Your task to perform on an android device: Empty the shopping cart on ebay. Add "usb-b" to the cart on ebay Image 0: 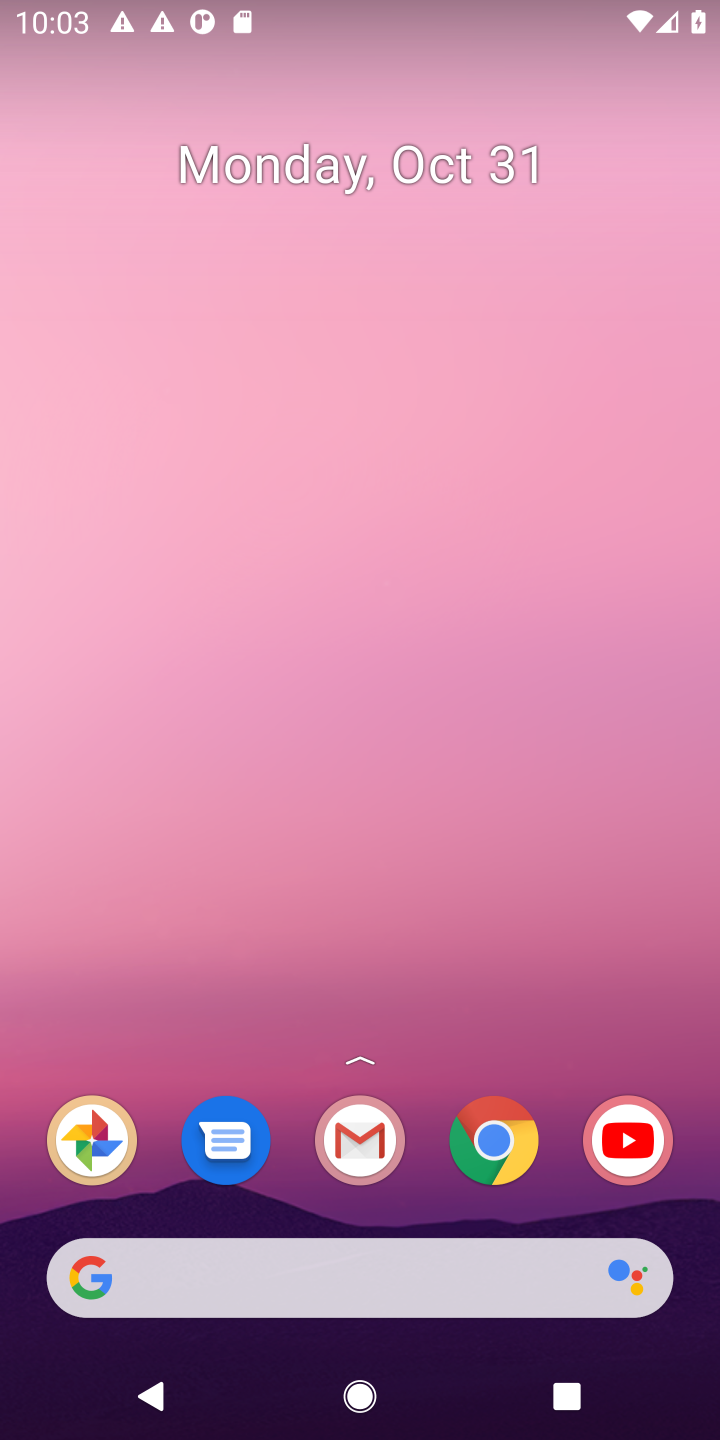
Step 0: press home button
Your task to perform on an android device: Empty the shopping cart on ebay. Add "usb-b" to the cart on ebay Image 1: 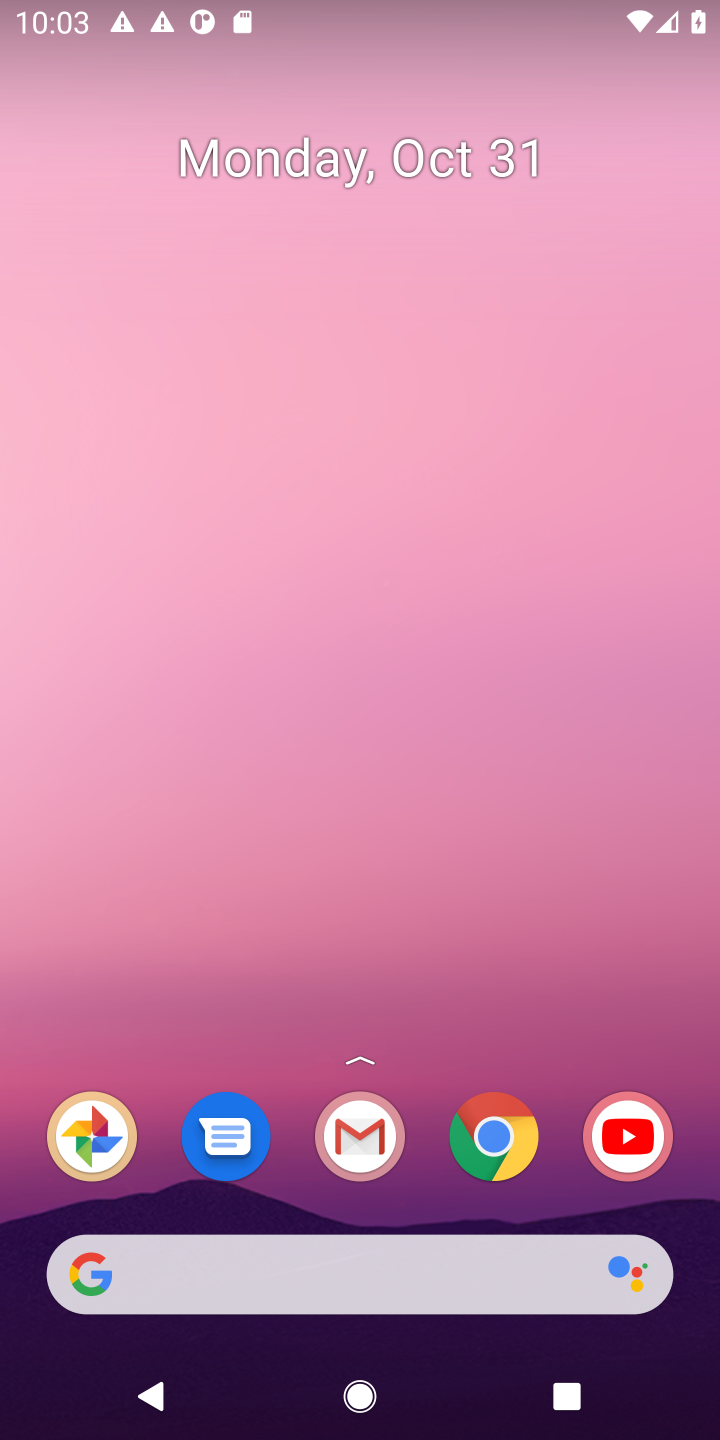
Step 1: click (131, 1276)
Your task to perform on an android device: Empty the shopping cart on ebay. Add "usb-b" to the cart on ebay Image 2: 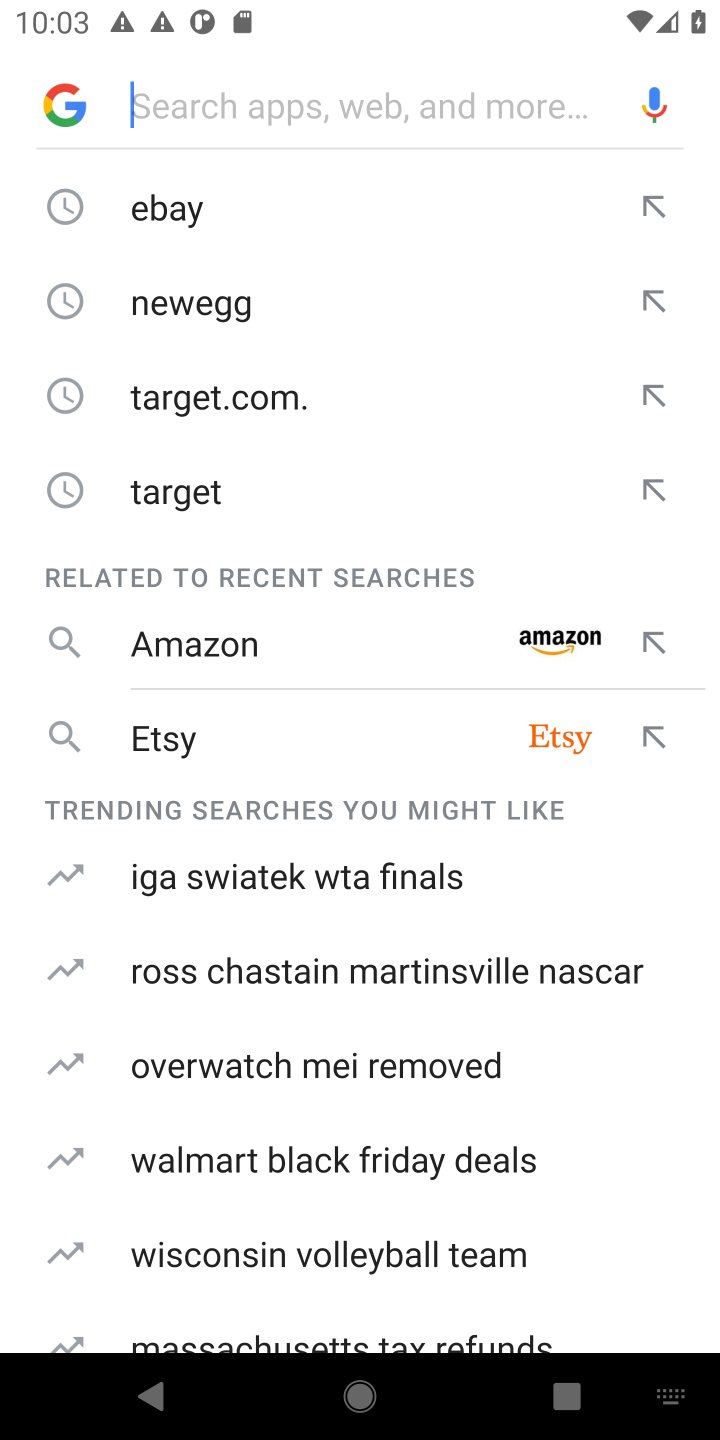
Step 2: press enter
Your task to perform on an android device: Empty the shopping cart on ebay. Add "usb-b" to the cart on ebay Image 3: 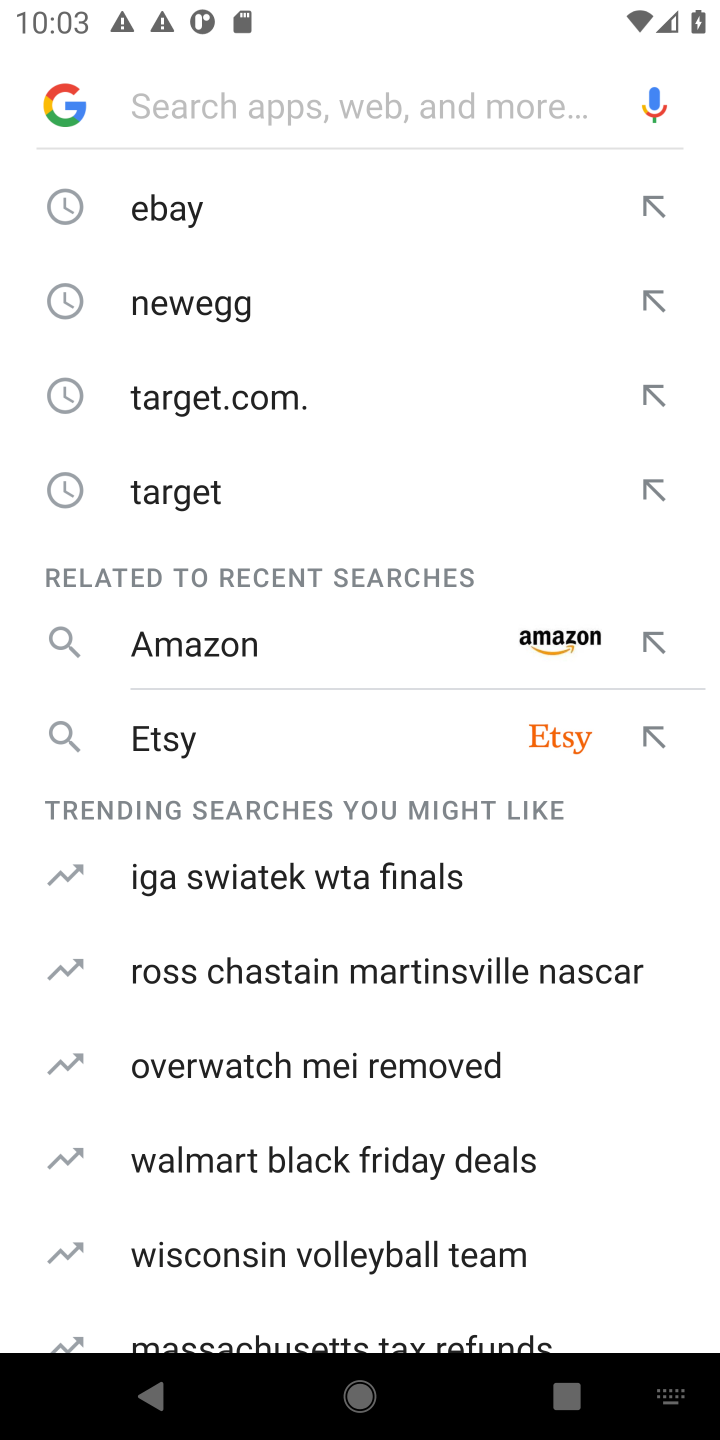
Step 3: type "ebay"
Your task to perform on an android device: Empty the shopping cart on ebay. Add "usb-b" to the cart on ebay Image 4: 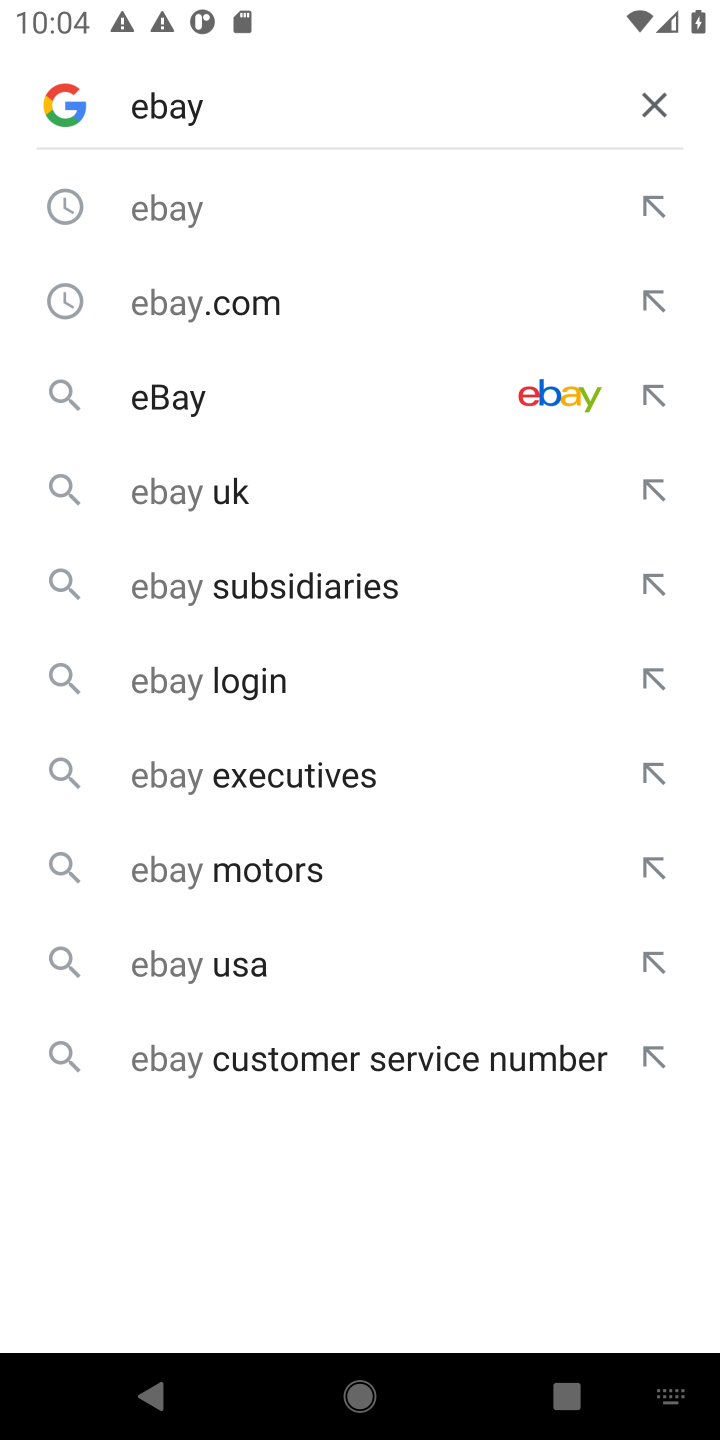
Step 4: press enter
Your task to perform on an android device: Empty the shopping cart on ebay. Add "usb-b" to the cart on ebay Image 5: 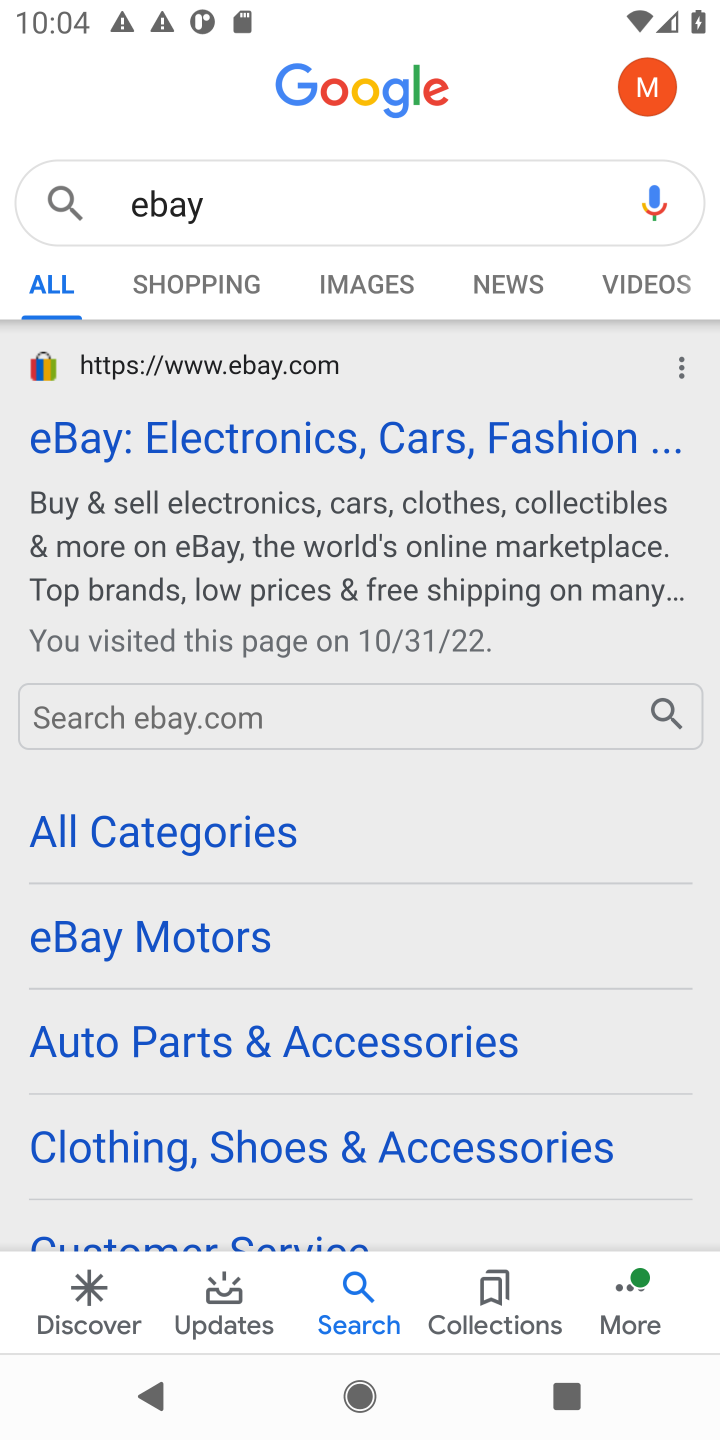
Step 5: click (336, 431)
Your task to perform on an android device: Empty the shopping cart on ebay. Add "usb-b" to the cart on ebay Image 6: 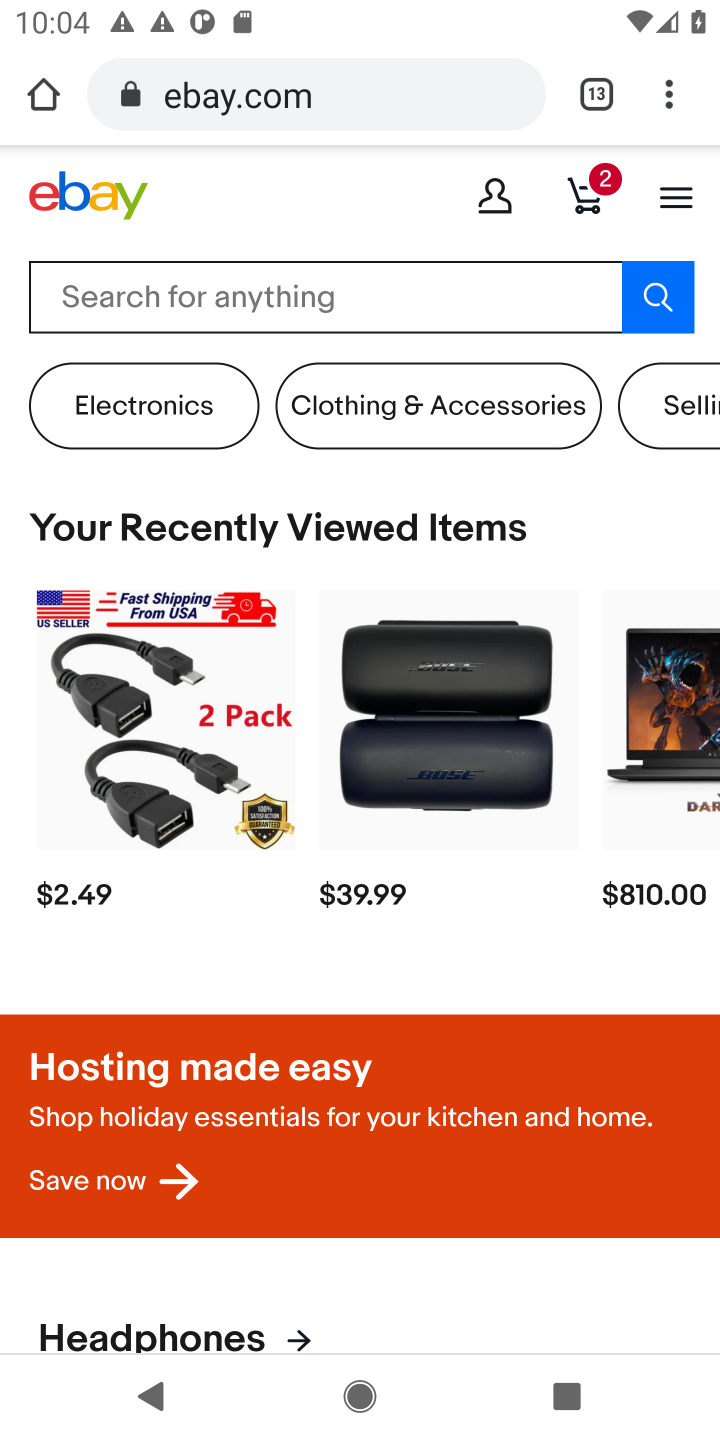
Step 6: click (592, 183)
Your task to perform on an android device: Empty the shopping cart on ebay. Add "usb-b" to the cart on ebay Image 7: 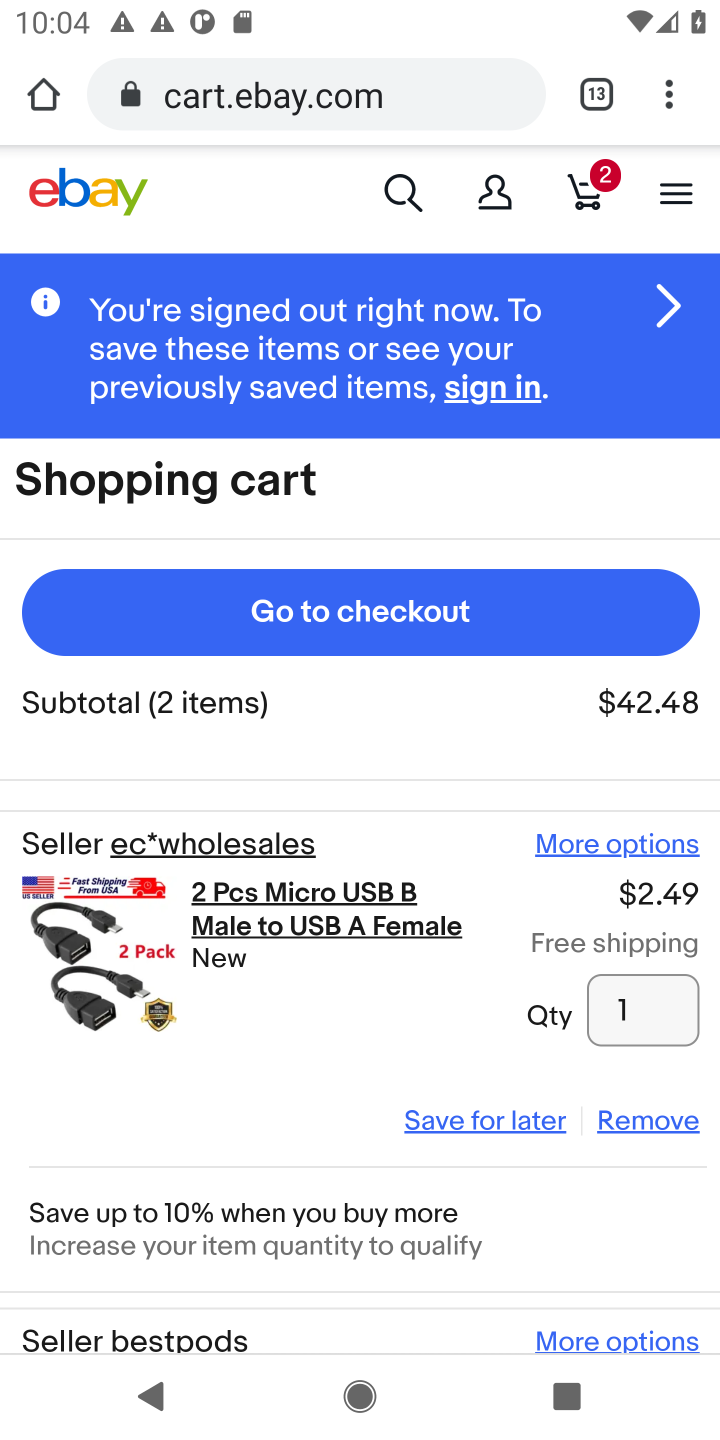
Step 7: click (657, 1127)
Your task to perform on an android device: Empty the shopping cart on ebay. Add "usb-b" to the cart on ebay Image 8: 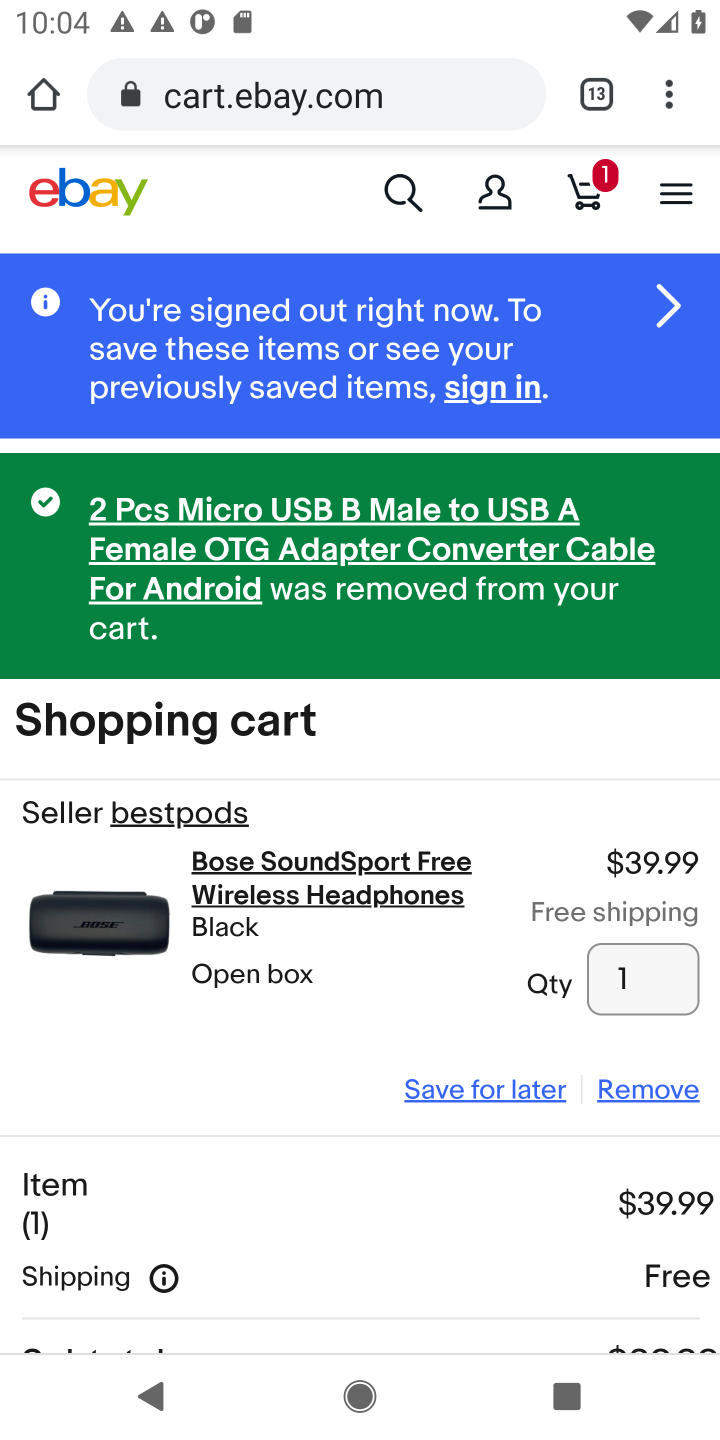
Step 8: click (652, 1084)
Your task to perform on an android device: Empty the shopping cart on ebay. Add "usb-b" to the cart on ebay Image 9: 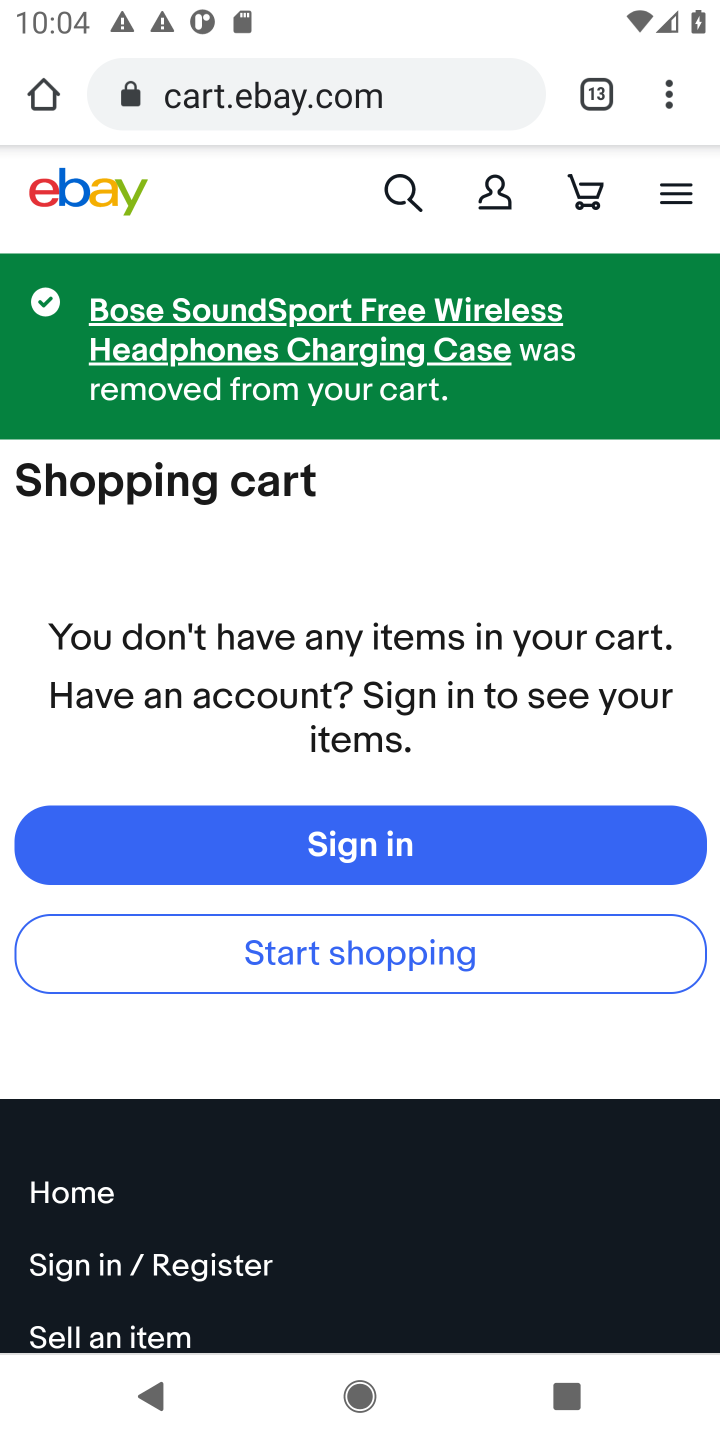
Step 9: click (396, 179)
Your task to perform on an android device: Empty the shopping cart on ebay. Add "usb-b" to the cart on ebay Image 10: 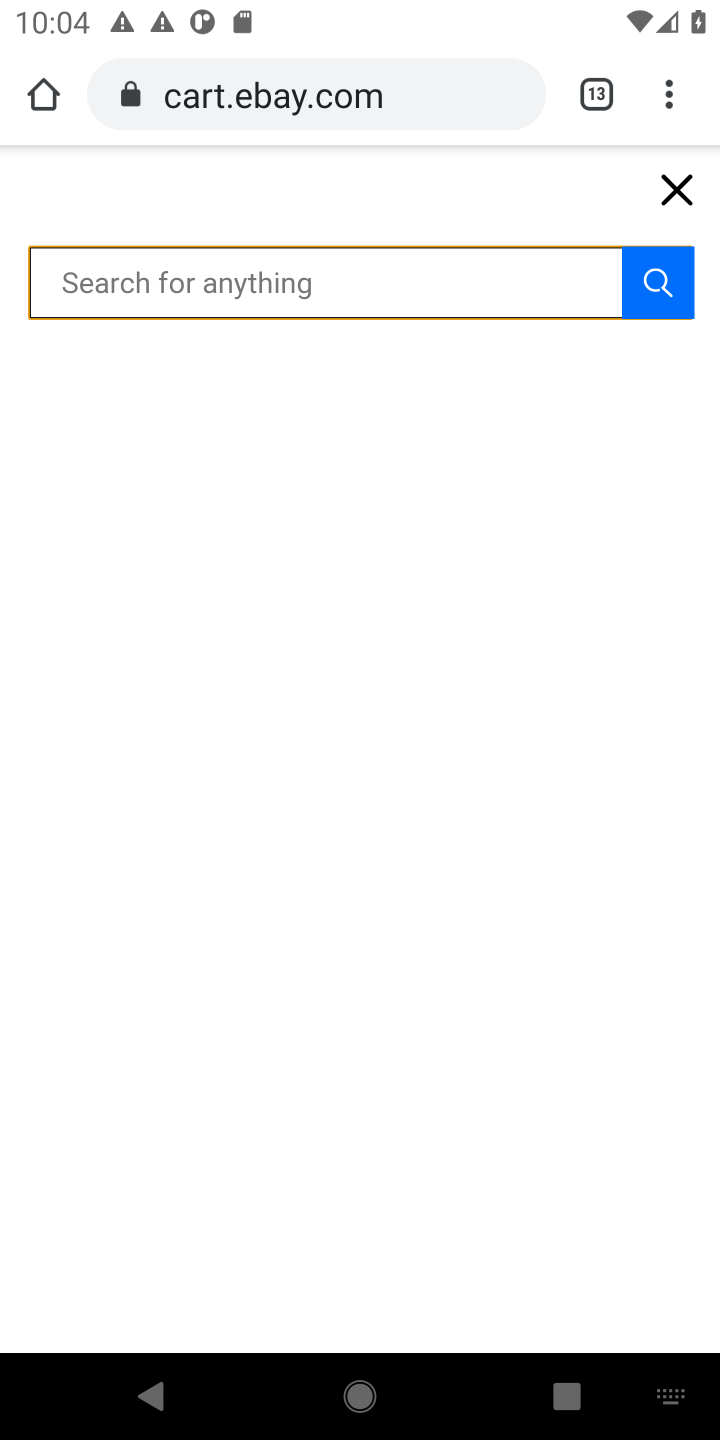
Step 10: press enter
Your task to perform on an android device: Empty the shopping cart on ebay. Add "usb-b" to the cart on ebay Image 11: 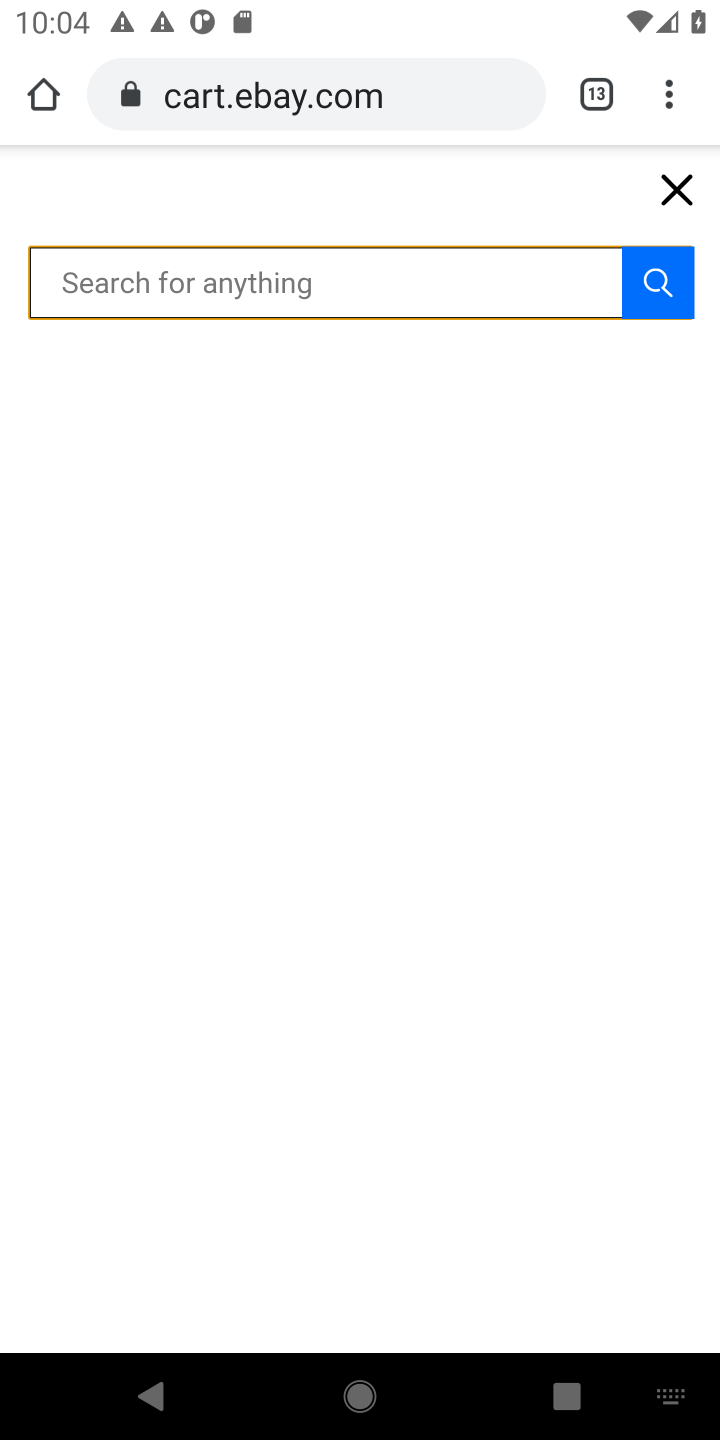
Step 11: type "usb-b"
Your task to perform on an android device: Empty the shopping cart on ebay. Add "usb-b" to the cart on ebay Image 12: 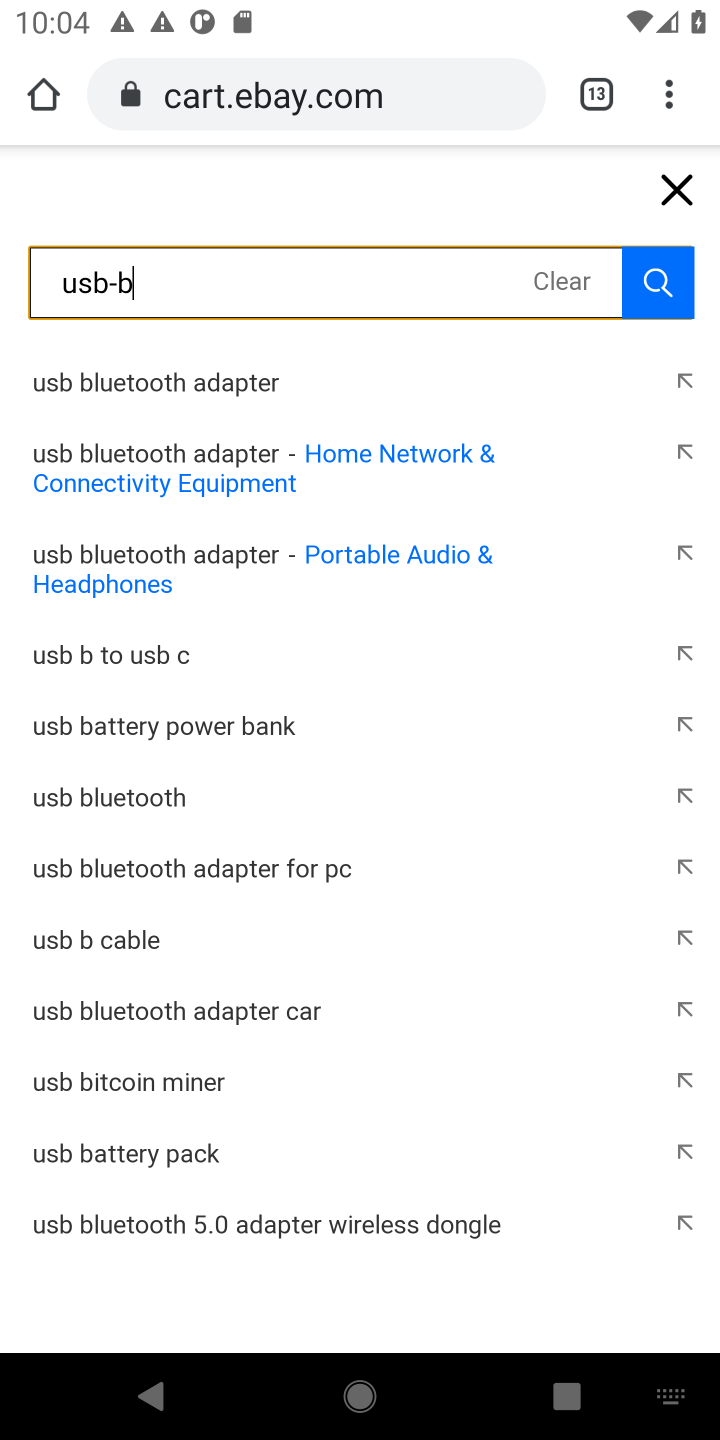
Step 12: click (661, 258)
Your task to perform on an android device: Empty the shopping cart on ebay. Add "usb-b" to the cart on ebay Image 13: 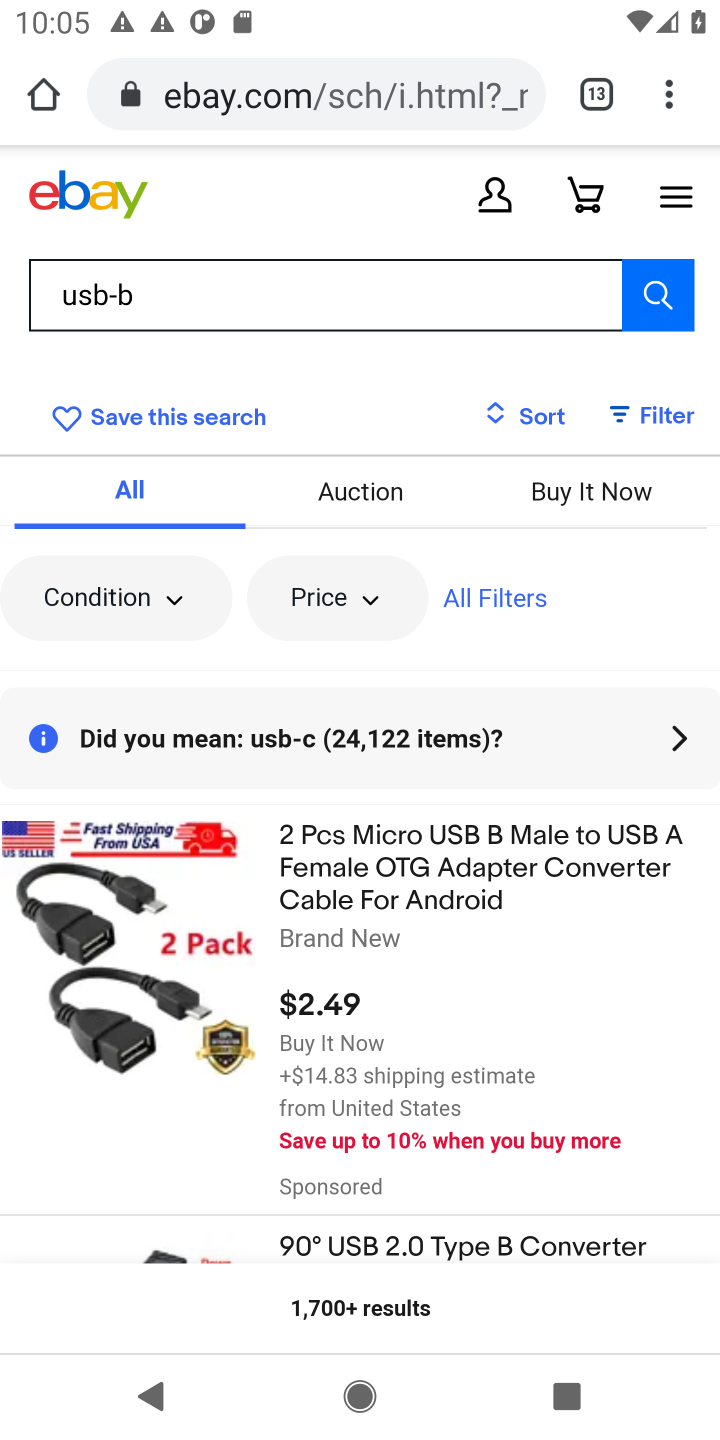
Step 13: drag from (402, 1148) to (405, 733)
Your task to perform on an android device: Empty the shopping cart on ebay. Add "usb-b" to the cart on ebay Image 14: 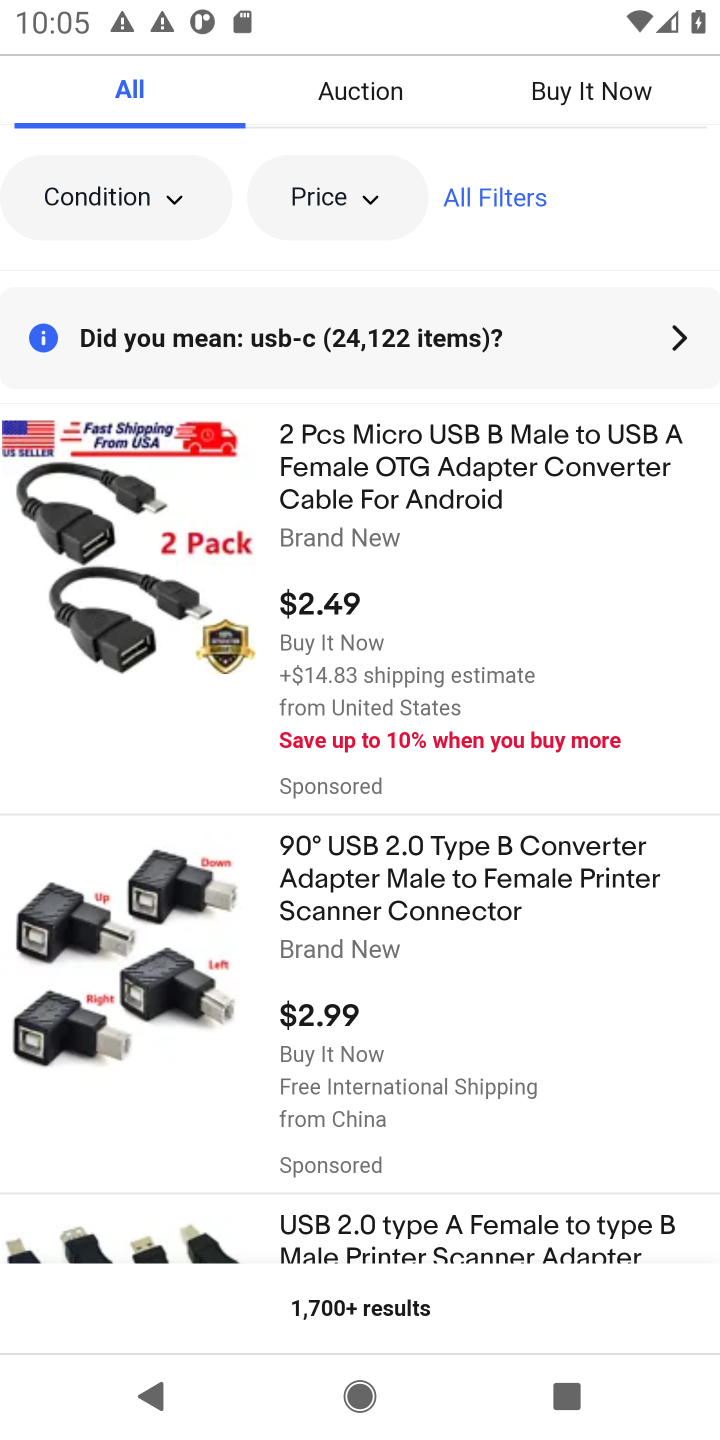
Step 14: click (446, 495)
Your task to perform on an android device: Empty the shopping cart on ebay. Add "usb-b" to the cart on ebay Image 15: 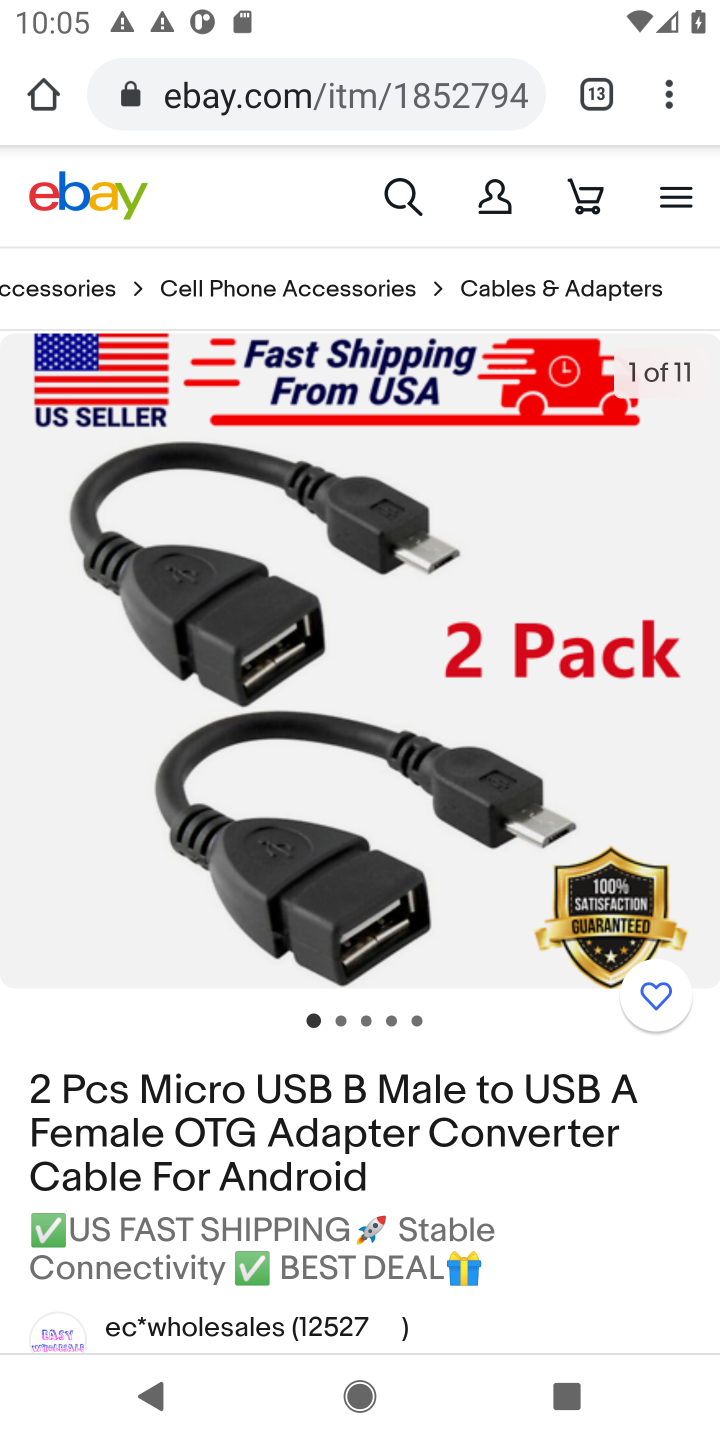
Step 15: drag from (375, 1064) to (405, 644)
Your task to perform on an android device: Empty the shopping cart on ebay. Add "usb-b" to the cart on ebay Image 16: 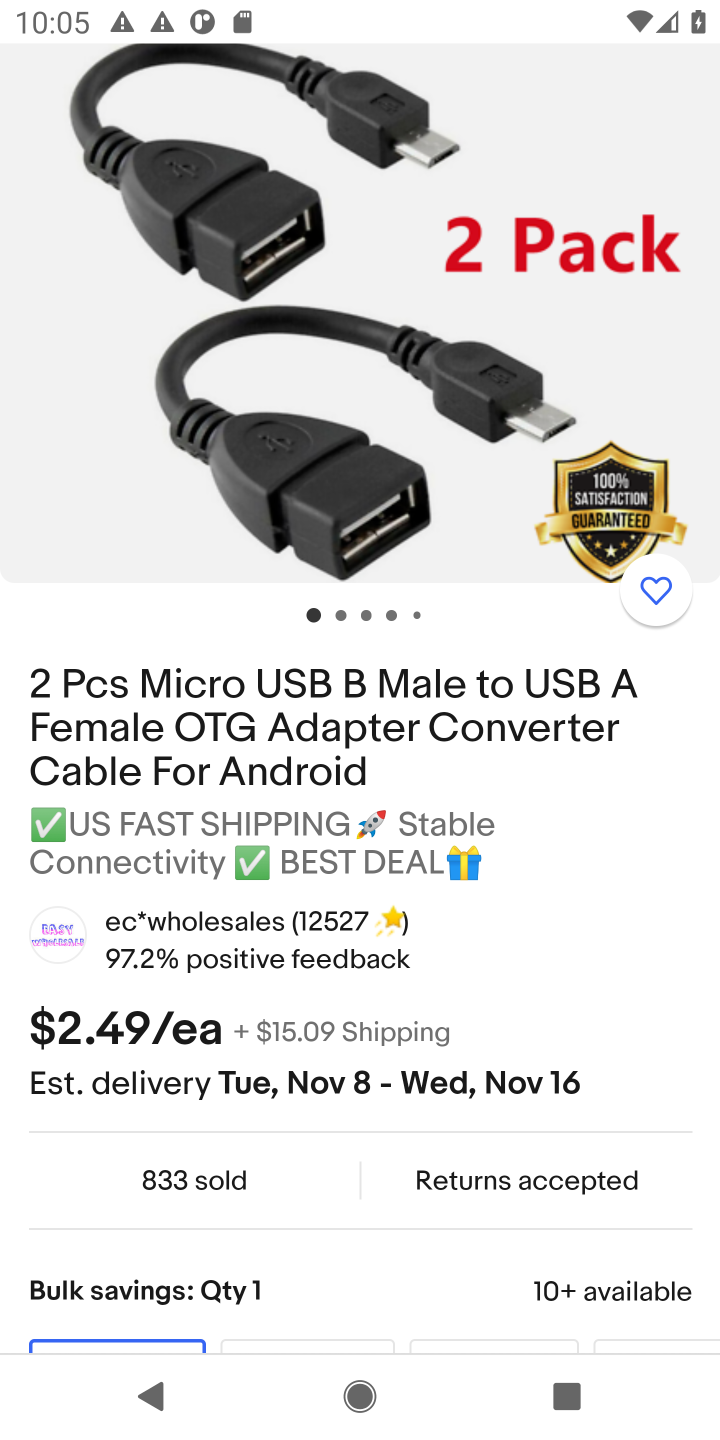
Step 16: drag from (384, 1133) to (402, 483)
Your task to perform on an android device: Empty the shopping cart on ebay. Add "usb-b" to the cart on ebay Image 17: 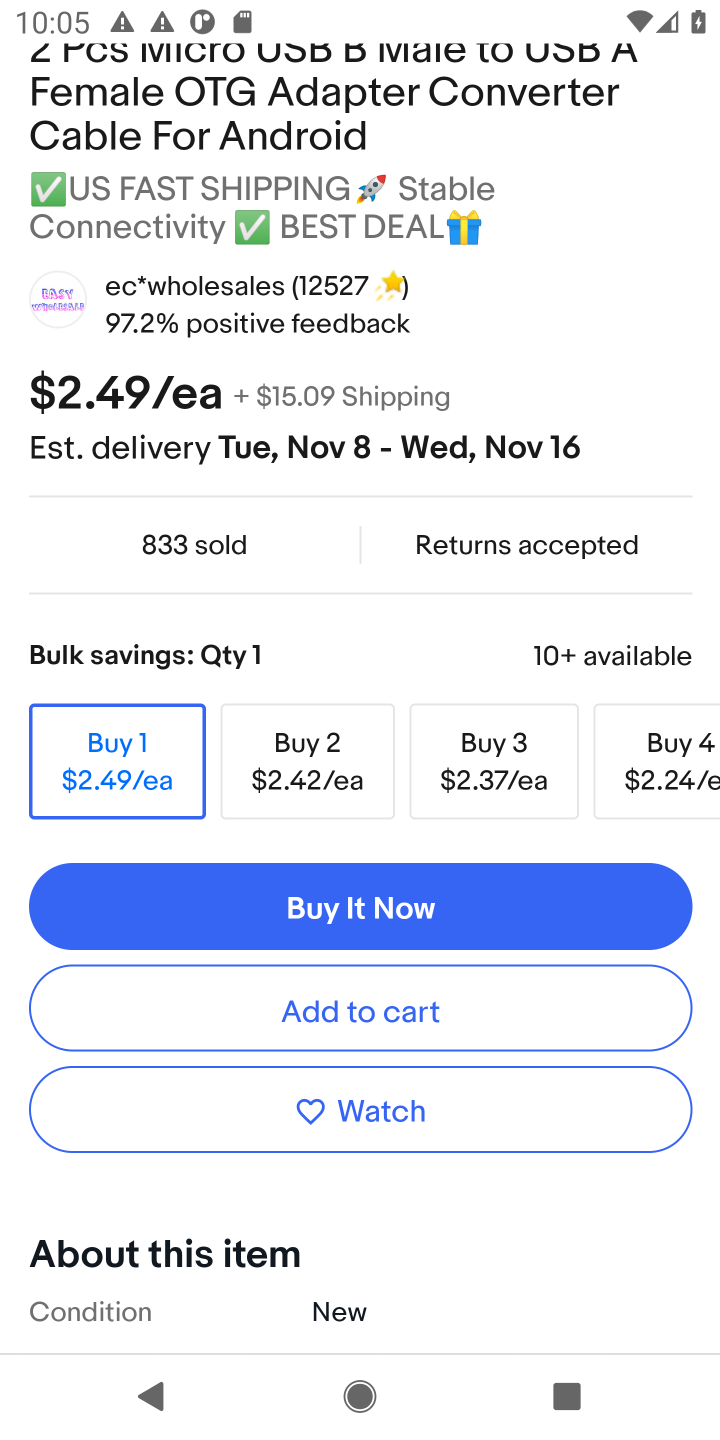
Step 17: click (475, 1024)
Your task to perform on an android device: Empty the shopping cart on ebay. Add "usb-b" to the cart on ebay Image 18: 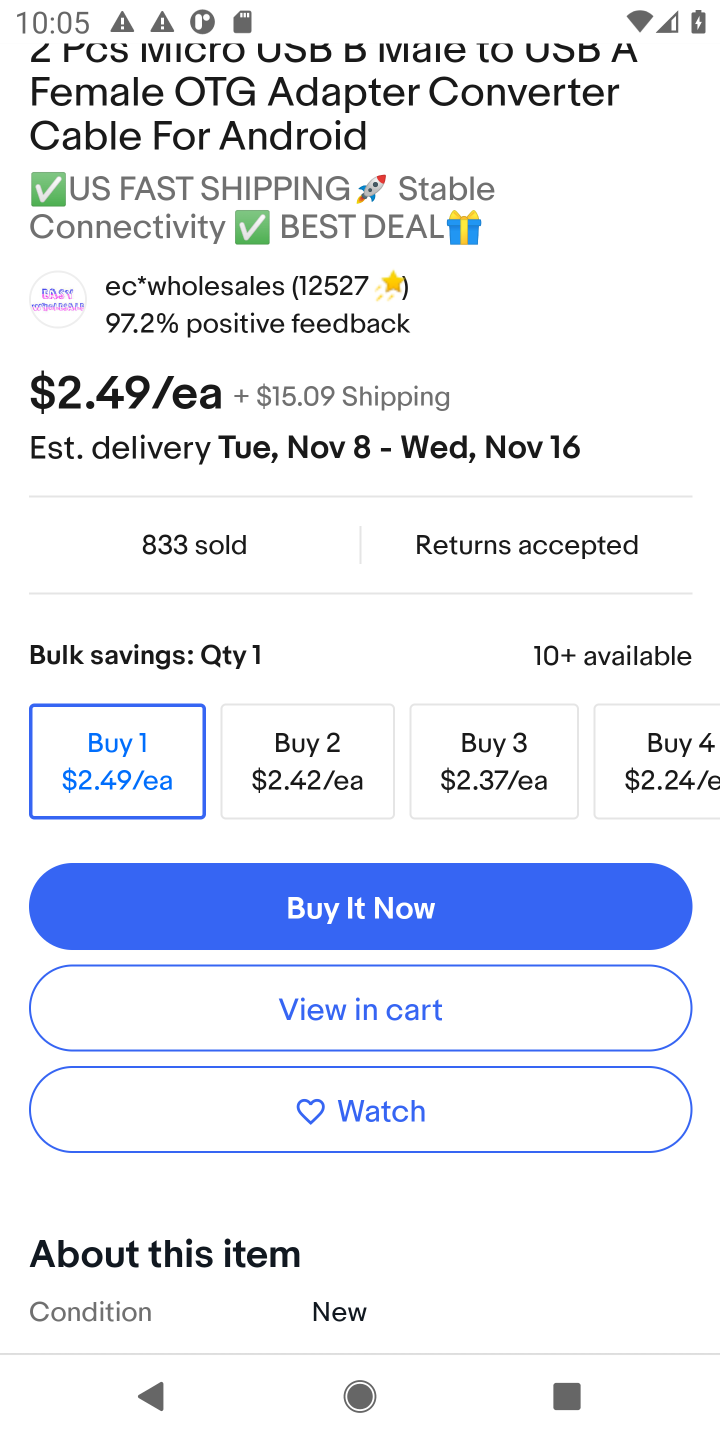
Step 18: task complete